Your task to perform on an android device: Open wifi settings Image 0: 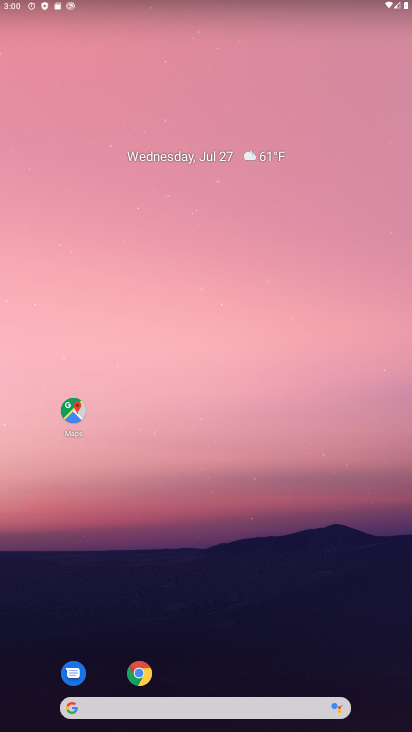
Step 0: drag from (6, 697) to (169, 19)
Your task to perform on an android device: Open wifi settings Image 1: 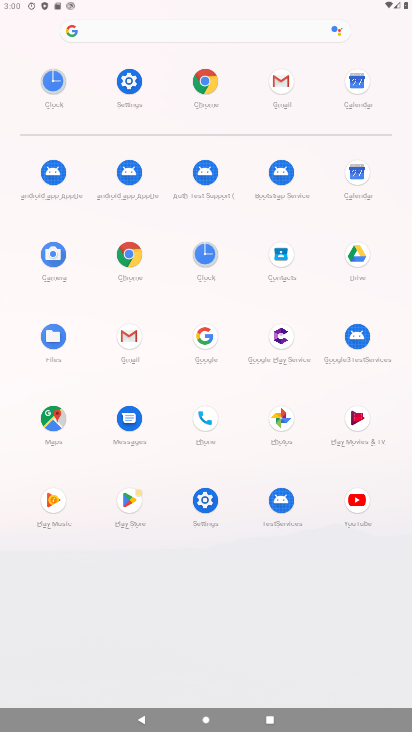
Step 1: click (186, 501)
Your task to perform on an android device: Open wifi settings Image 2: 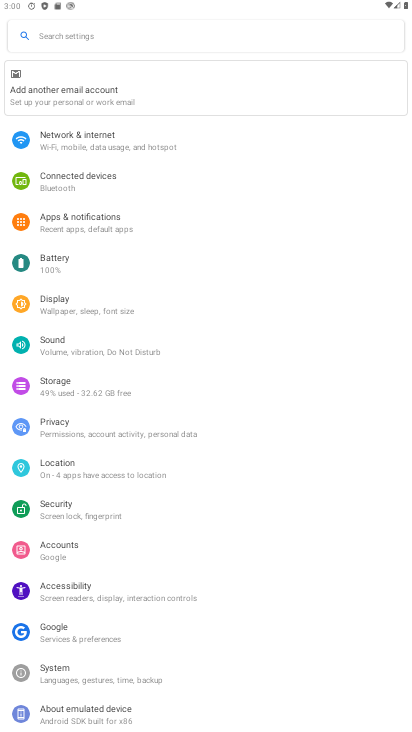
Step 2: click (101, 140)
Your task to perform on an android device: Open wifi settings Image 3: 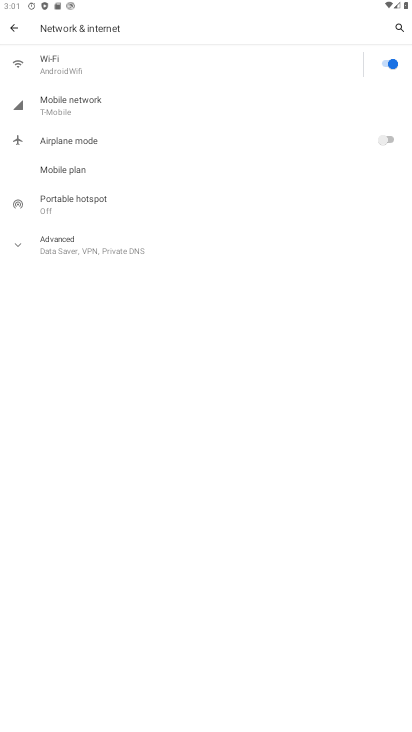
Step 3: task complete